Your task to perform on an android device: turn off location Image 0: 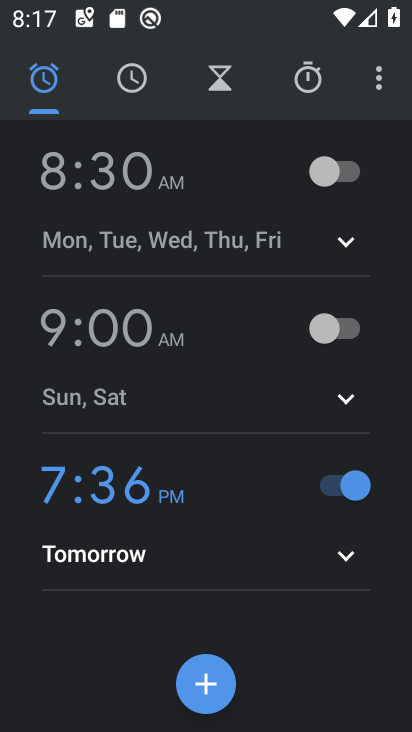
Step 0: press home button
Your task to perform on an android device: turn off location Image 1: 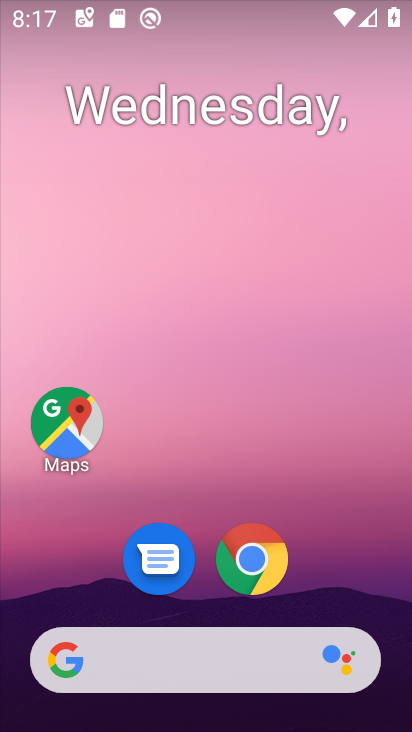
Step 1: drag from (370, 569) to (382, 180)
Your task to perform on an android device: turn off location Image 2: 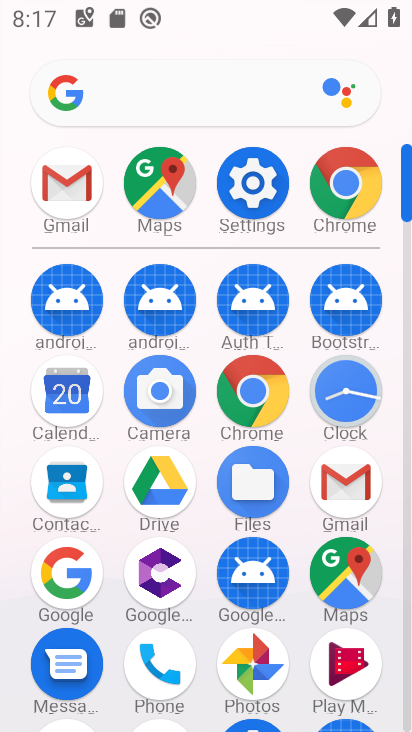
Step 2: click (266, 197)
Your task to perform on an android device: turn off location Image 3: 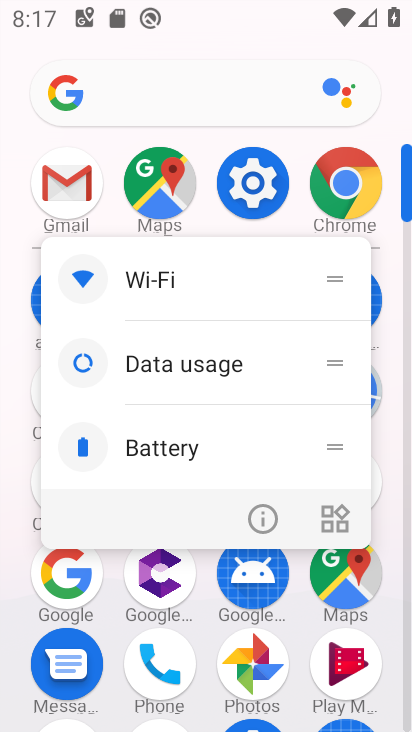
Step 3: click (265, 175)
Your task to perform on an android device: turn off location Image 4: 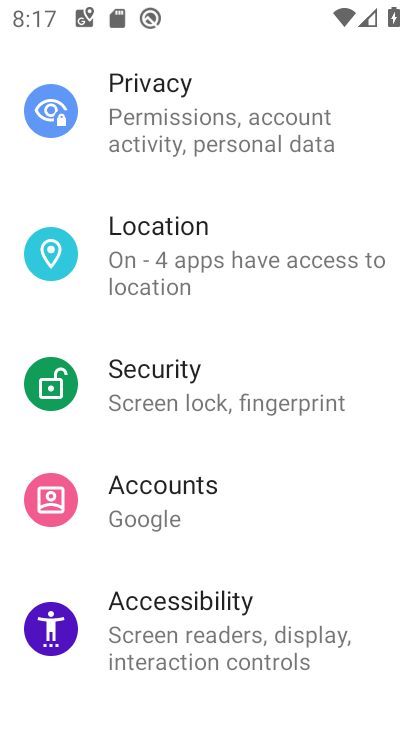
Step 4: click (212, 238)
Your task to perform on an android device: turn off location Image 5: 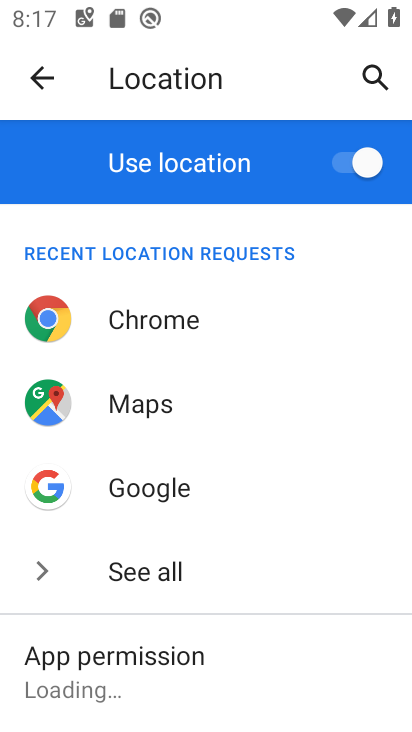
Step 5: click (338, 160)
Your task to perform on an android device: turn off location Image 6: 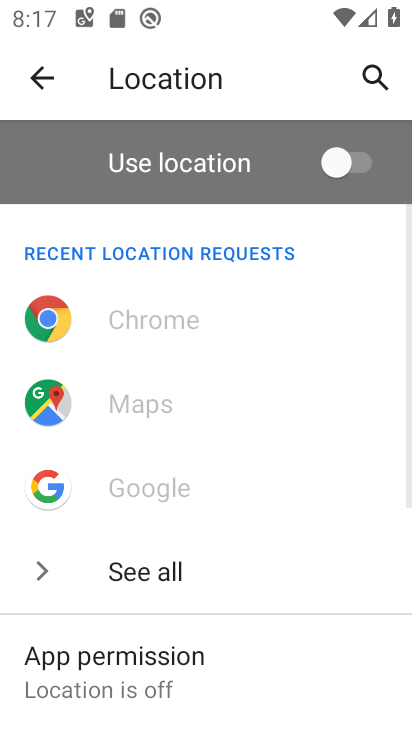
Step 6: task complete